Your task to perform on an android device: check android version Image 0: 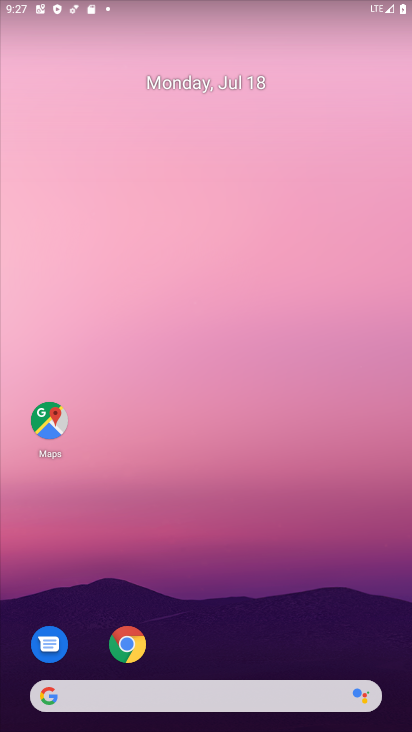
Step 0: drag from (191, 667) to (133, 0)
Your task to perform on an android device: check android version Image 1: 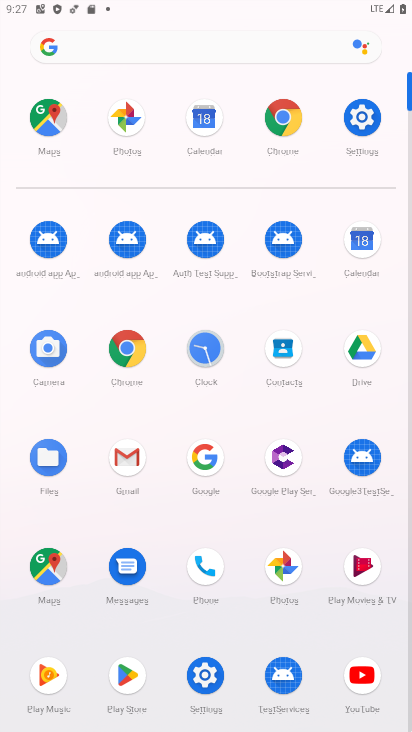
Step 1: click (361, 125)
Your task to perform on an android device: check android version Image 2: 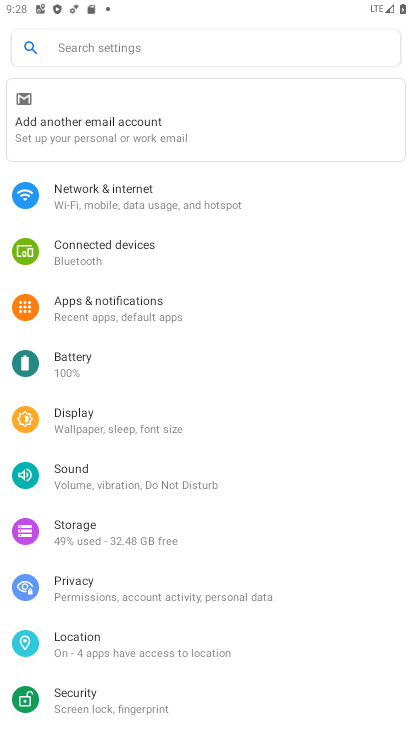
Step 2: drag from (169, 568) to (118, 112)
Your task to perform on an android device: check android version Image 3: 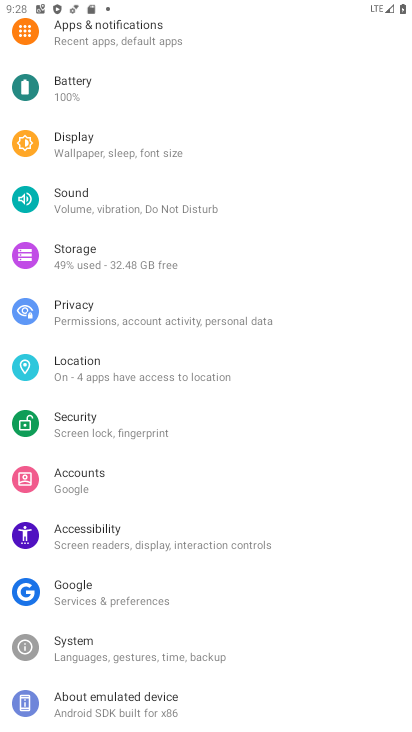
Step 3: drag from (161, 546) to (122, 192)
Your task to perform on an android device: check android version Image 4: 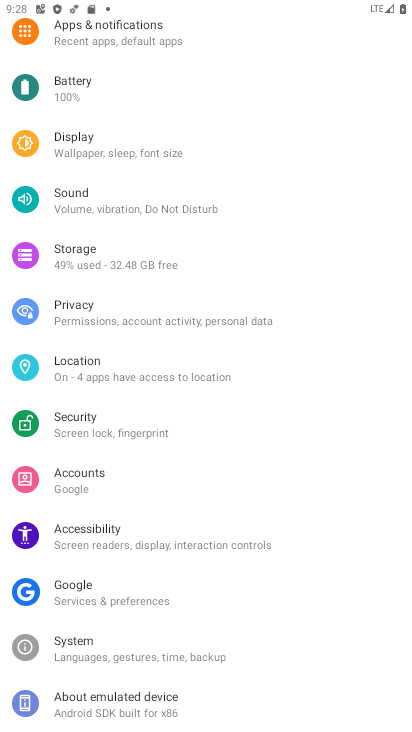
Step 4: click (97, 704)
Your task to perform on an android device: check android version Image 5: 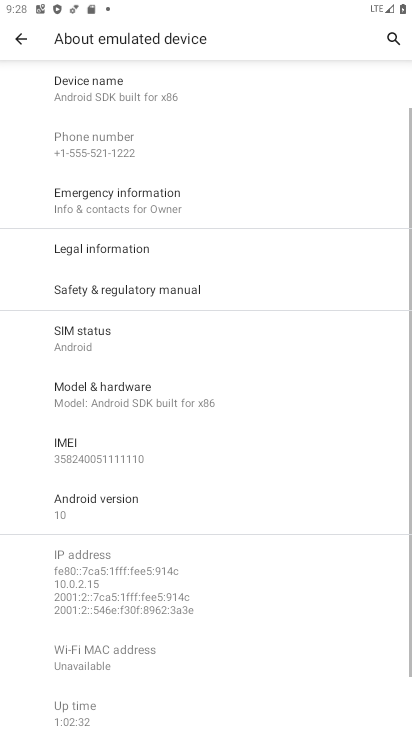
Step 5: click (94, 517)
Your task to perform on an android device: check android version Image 6: 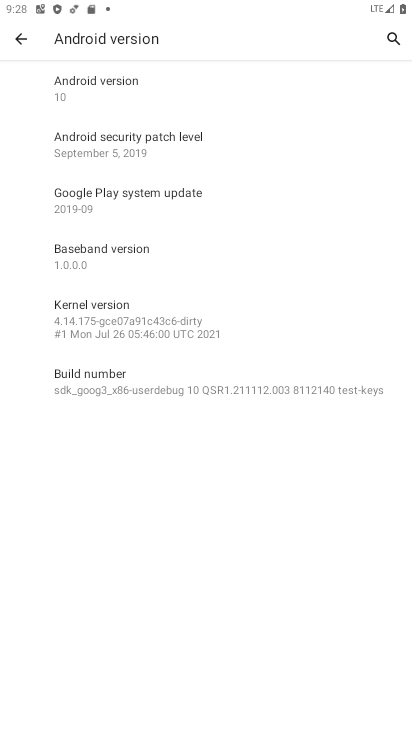
Step 6: click (56, 85)
Your task to perform on an android device: check android version Image 7: 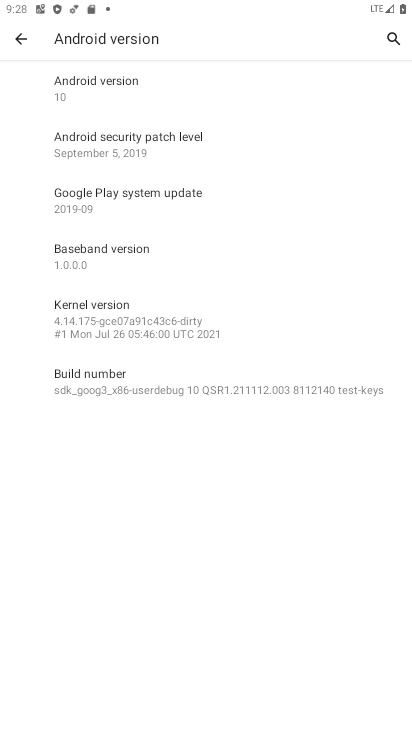
Step 7: task complete